Your task to perform on an android device: turn off airplane mode Image 0: 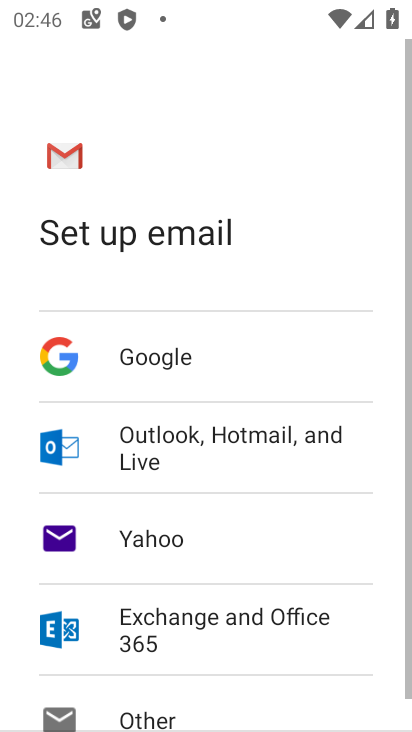
Step 0: press home button
Your task to perform on an android device: turn off airplane mode Image 1: 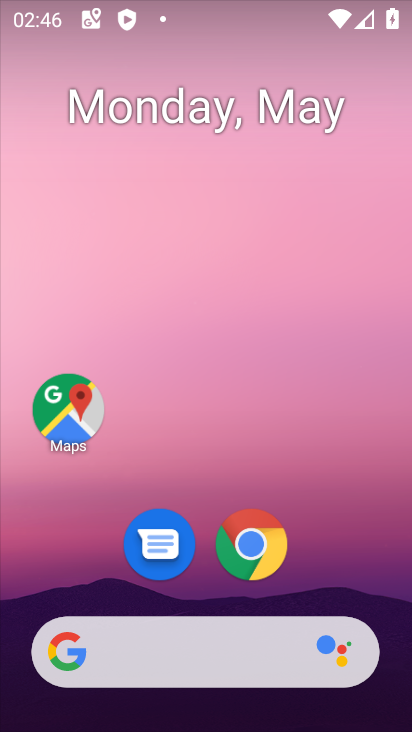
Step 1: drag from (322, 556) to (369, 82)
Your task to perform on an android device: turn off airplane mode Image 2: 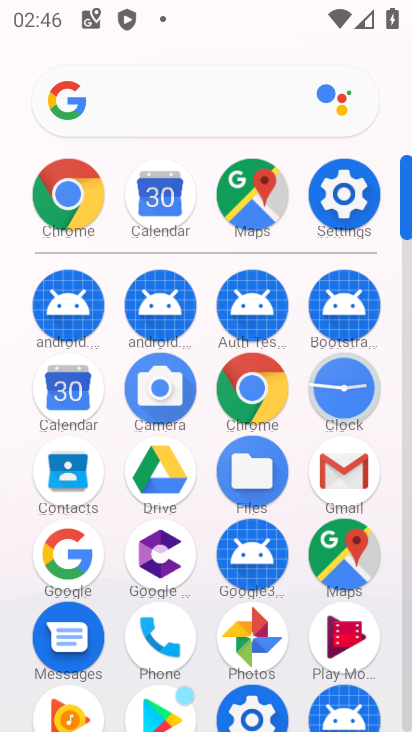
Step 2: click (357, 210)
Your task to perform on an android device: turn off airplane mode Image 3: 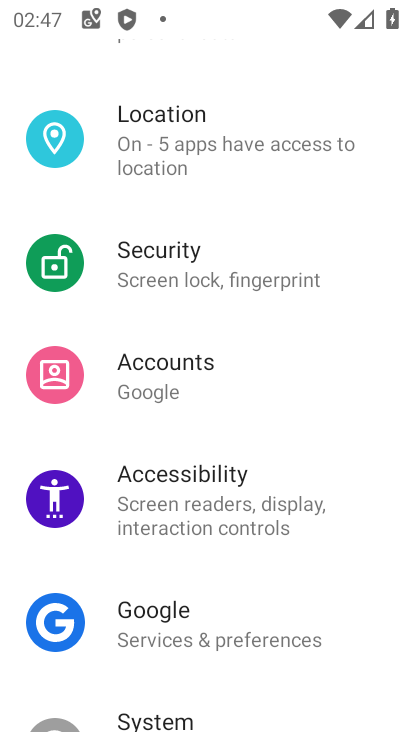
Step 3: drag from (362, 211) to (356, 457)
Your task to perform on an android device: turn off airplane mode Image 4: 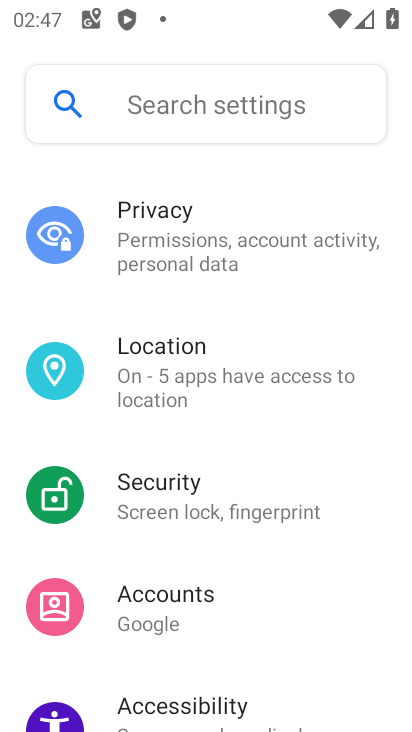
Step 4: drag from (362, 281) to (348, 472)
Your task to perform on an android device: turn off airplane mode Image 5: 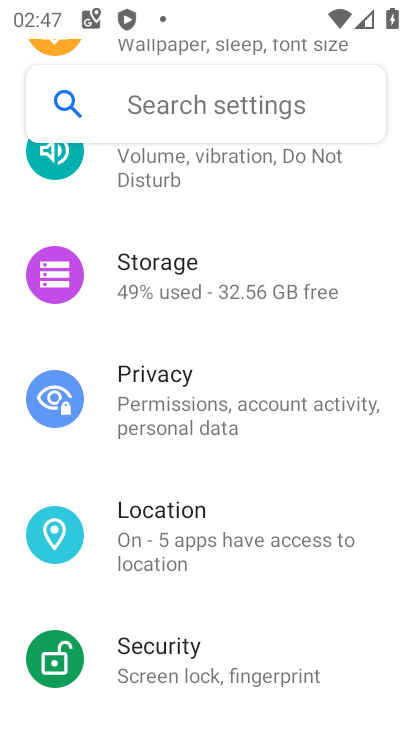
Step 5: drag from (362, 224) to (356, 375)
Your task to perform on an android device: turn off airplane mode Image 6: 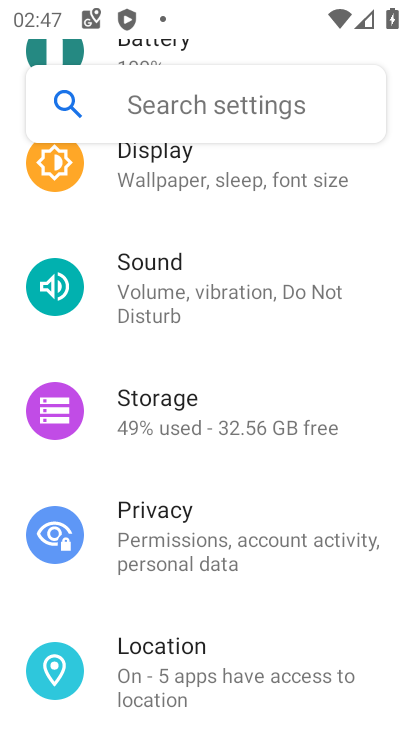
Step 6: drag from (361, 201) to (345, 374)
Your task to perform on an android device: turn off airplane mode Image 7: 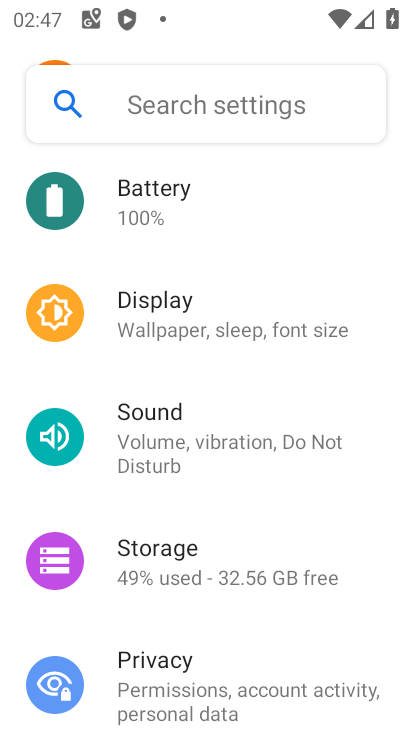
Step 7: drag from (336, 235) to (340, 364)
Your task to perform on an android device: turn off airplane mode Image 8: 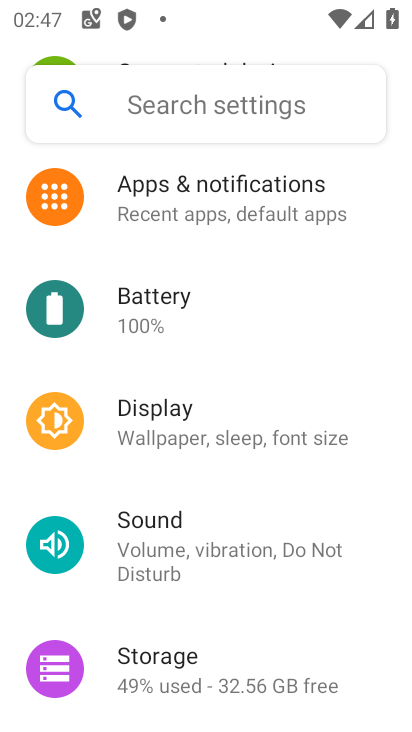
Step 8: drag from (364, 195) to (363, 365)
Your task to perform on an android device: turn off airplane mode Image 9: 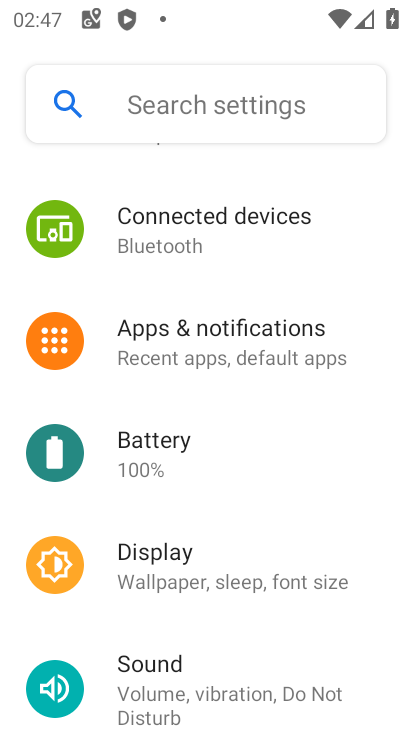
Step 9: drag from (343, 187) to (342, 344)
Your task to perform on an android device: turn off airplane mode Image 10: 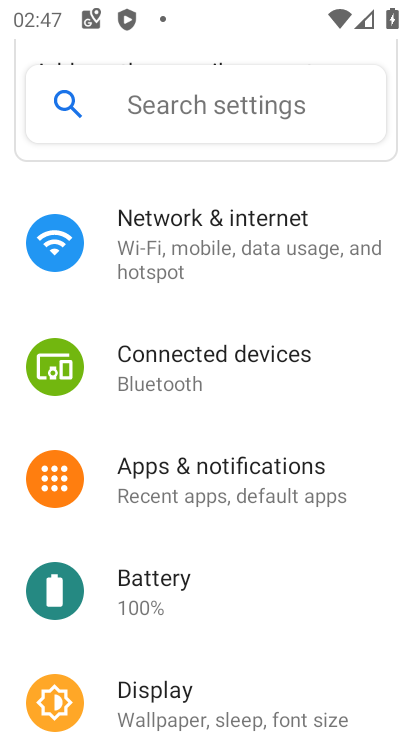
Step 10: click (273, 244)
Your task to perform on an android device: turn off airplane mode Image 11: 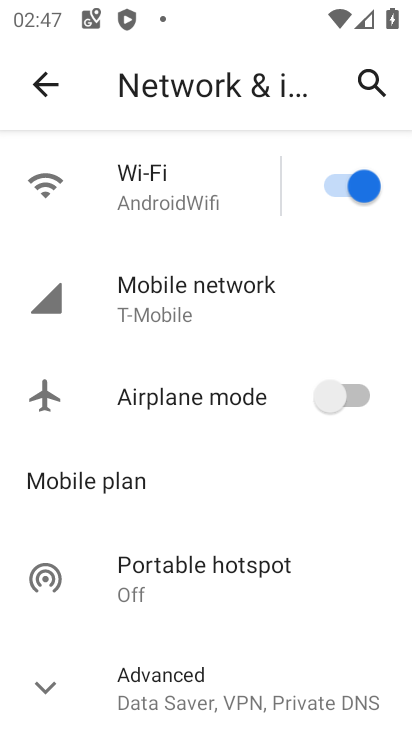
Step 11: task complete